Your task to perform on an android device: turn on bluetooth scan Image 0: 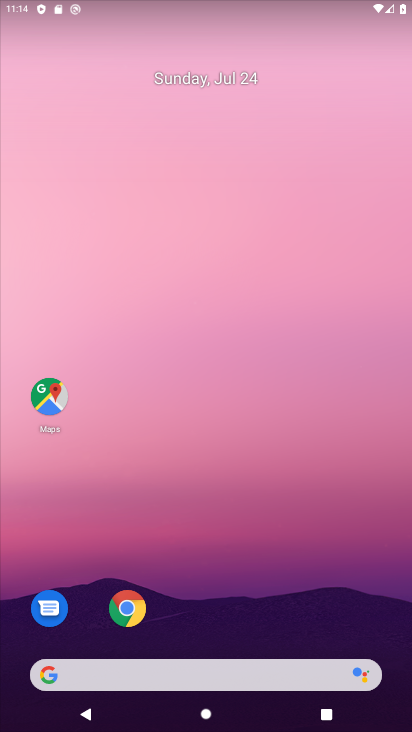
Step 0: drag from (251, 636) to (221, 10)
Your task to perform on an android device: turn on bluetooth scan Image 1: 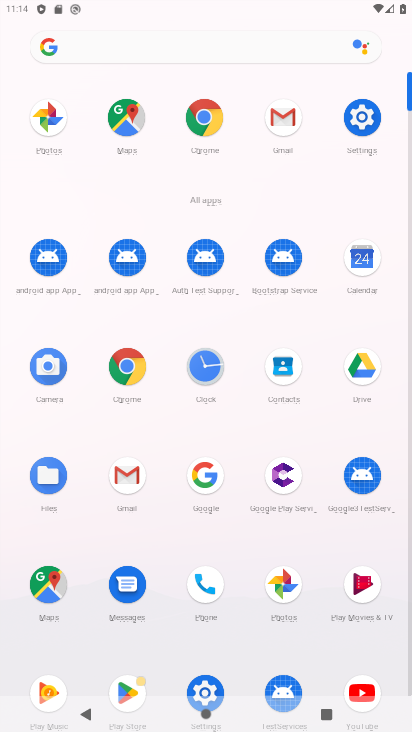
Step 1: click (357, 129)
Your task to perform on an android device: turn on bluetooth scan Image 2: 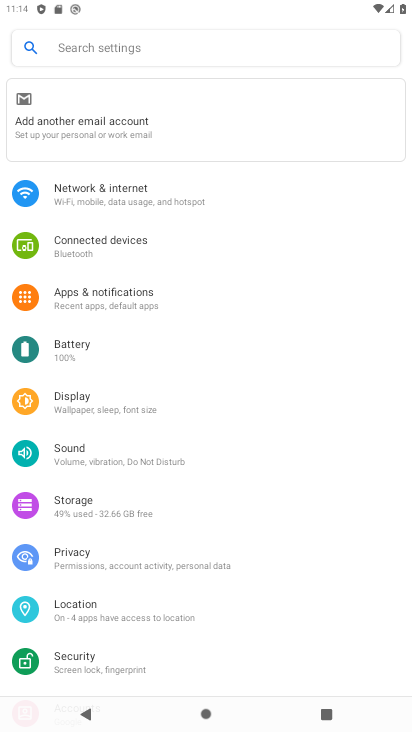
Step 2: click (67, 608)
Your task to perform on an android device: turn on bluetooth scan Image 3: 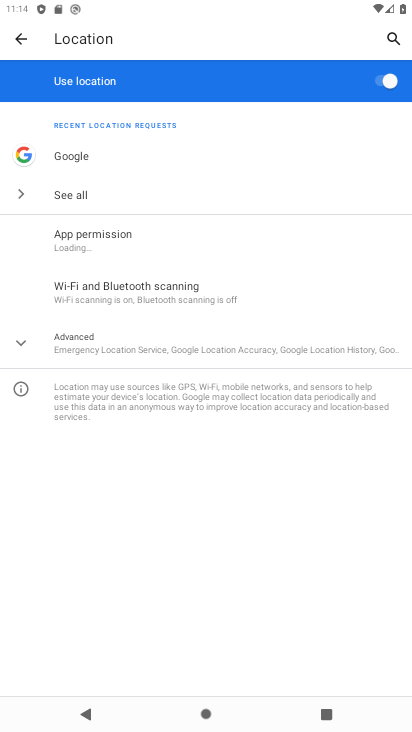
Step 3: click (20, 343)
Your task to perform on an android device: turn on bluetooth scan Image 4: 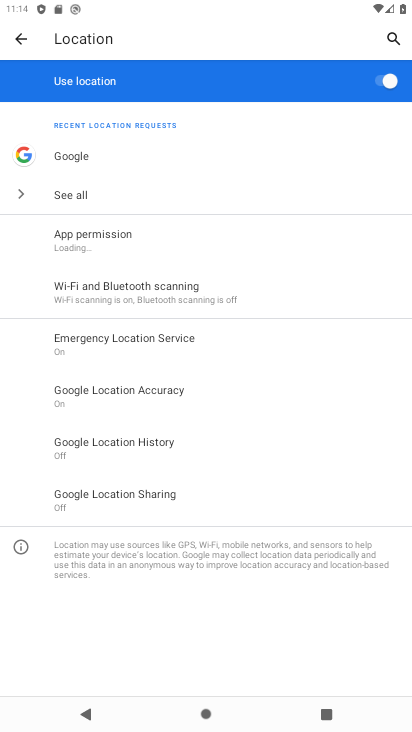
Step 4: click (111, 299)
Your task to perform on an android device: turn on bluetooth scan Image 5: 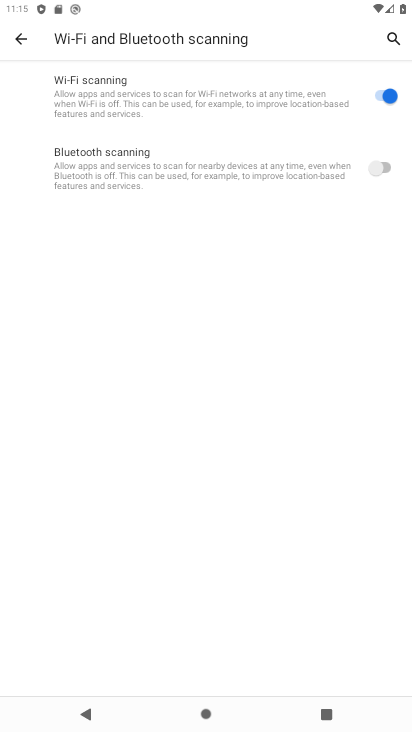
Step 5: click (378, 166)
Your task to perform on an android device: turn on bluetooth scan Image 6: 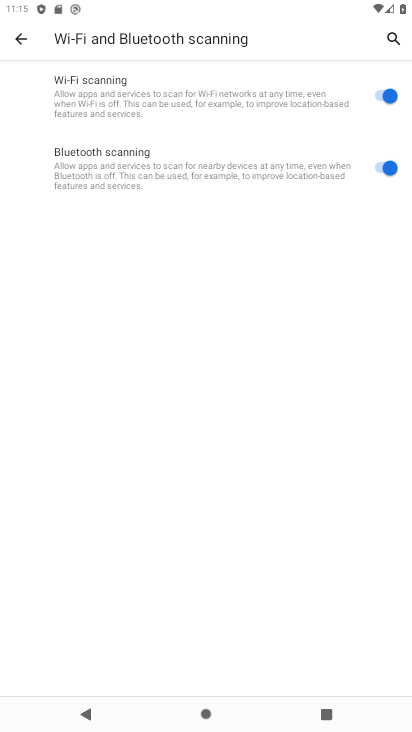
Step 6: task complete